Your task to perform on an android device: turn off sleep mode Image 0: 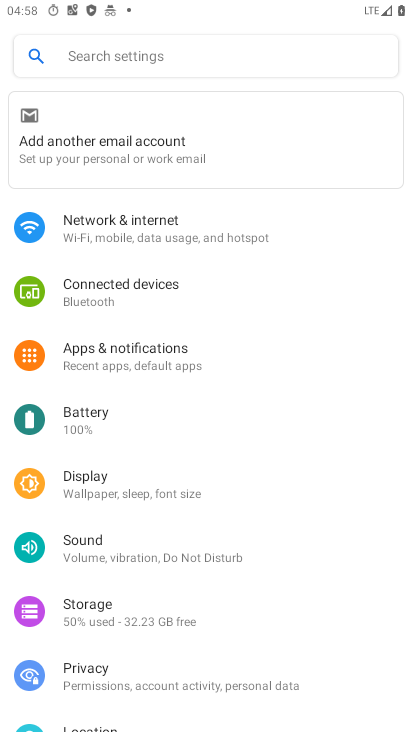
Step 0: press home button
Your task to perform on an android device: turn off sleep mode Image 1: 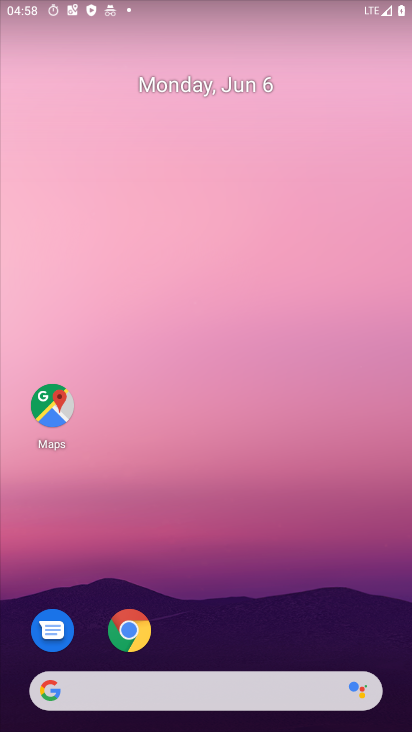
Step 1: drag from (246, 631) to (277, 159)
Your task to perform on an android device: turn off sleep mode Image 2: 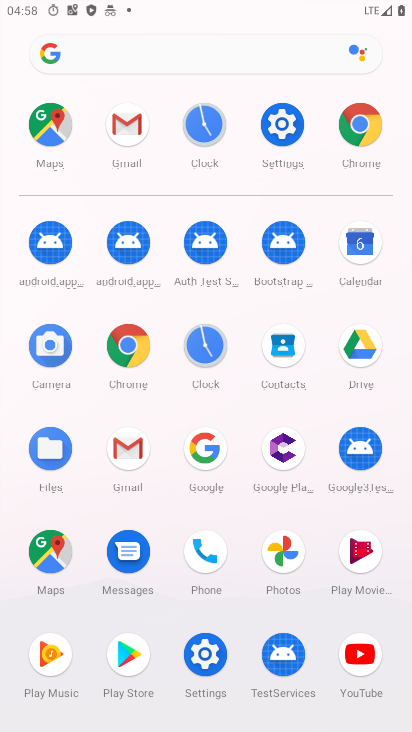
Step 2: click (285, 131)
Your task to perform on an android device: turn off sleep mode Image 3: 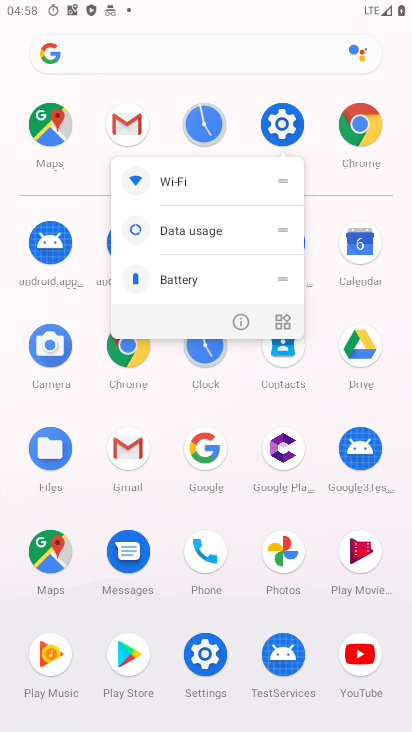
Step 3: click (281, 119)
Your task to perform on an android device: turn off sleep mode Image 4: 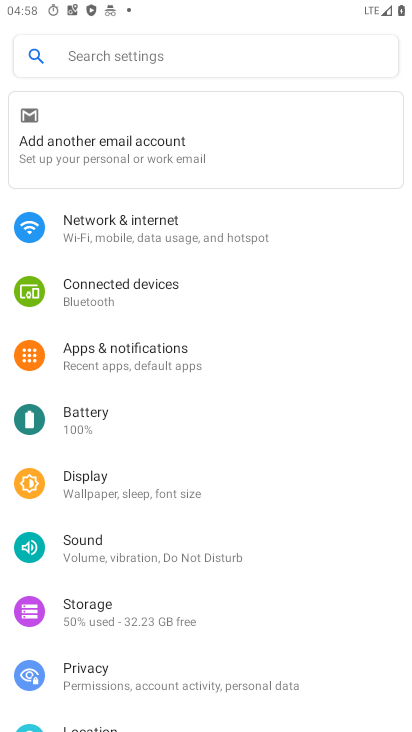
Step 4: click (136, 498)
Your task to perform on an android device: turn off sleep mode Image 5: 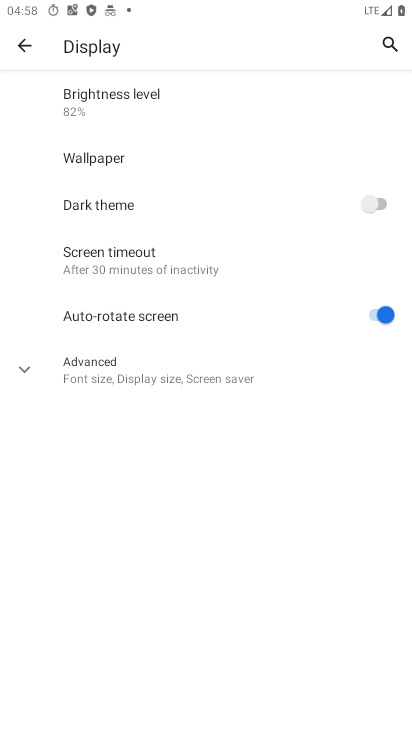
Step 5: task complete